Your task to perform on an android device: check android version Image 0: 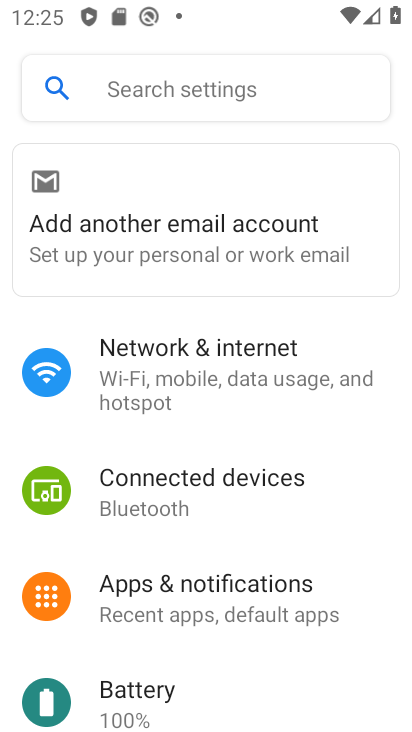
Step 0: drag from (190, 355) to (186, 40)
Your task to perform on an android device: check android version Image 1: 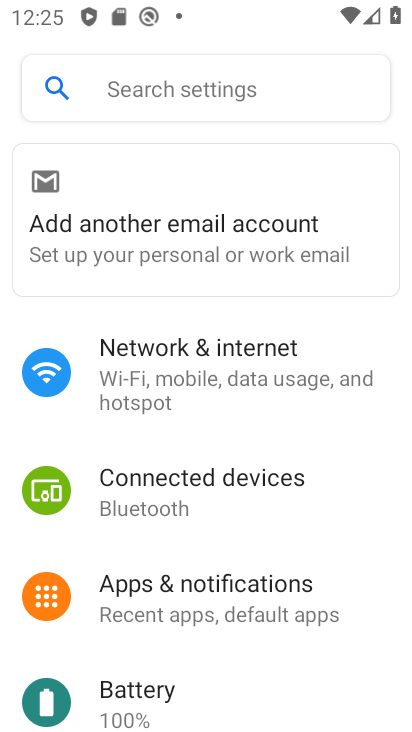
Step 1: drag from (227, 660) to (298, 274)
Your task to perform on an android device: check android version Image 2: 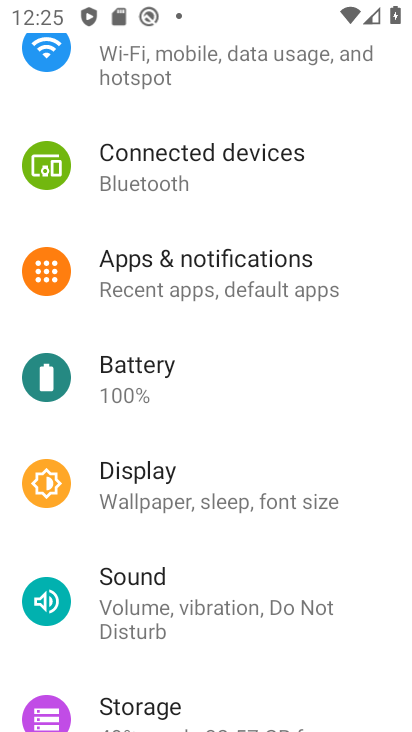
Step 2: drag from (171, 690) to (304, 27)
Your task to perform on an android device: check android version Image 3: 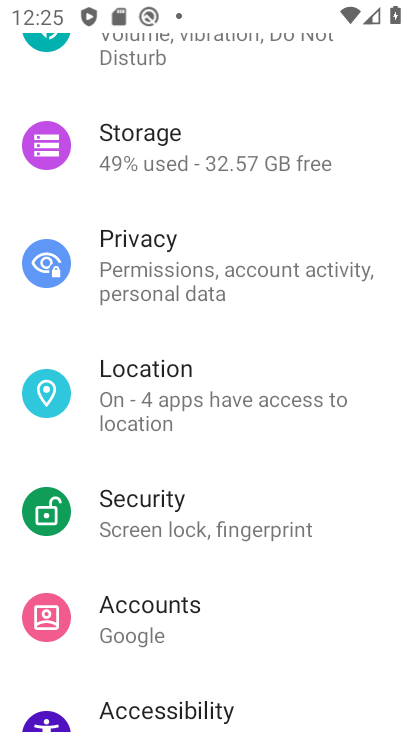
Step 3: drag from (120, 678) to (238, 225)
Your task to perform on an android device: check android version Image 4: 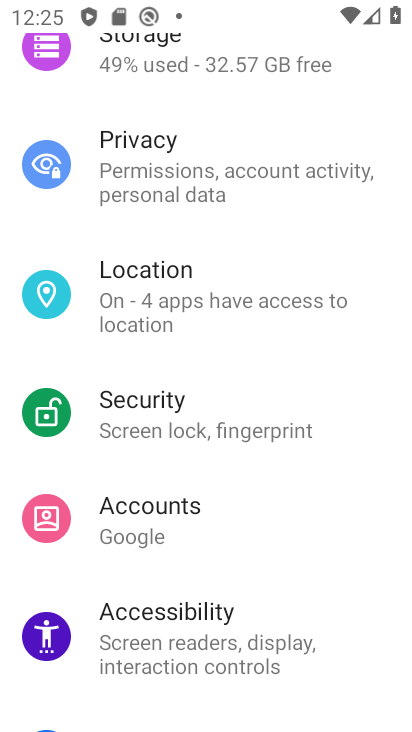
Step 4: drag from (286, 578) to (300, 206)
Your task to perform on an android device: check android version Image 5: 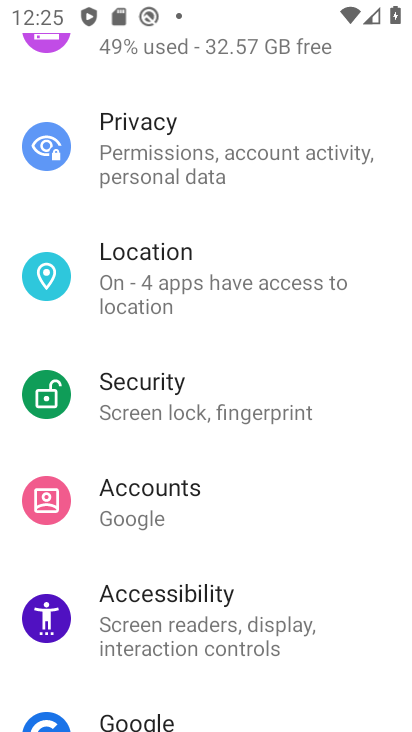
Step 5: drag from (85, 692) to (175, 286)
Your task to perform on an android device: check android version Image 6: 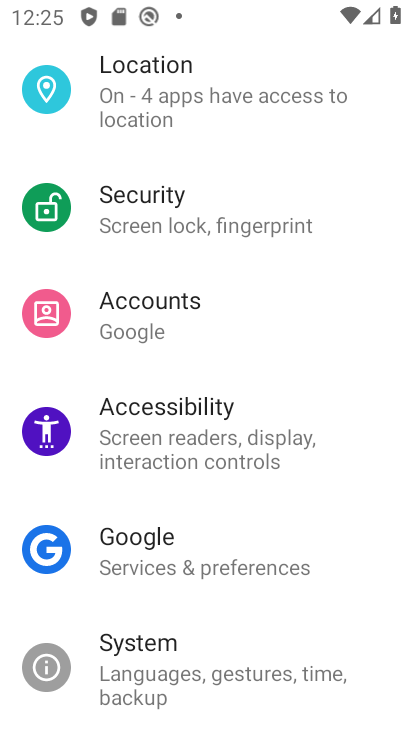
Step 6: drag from (248, 651) to (270, 268)
Your task to perform on an android device: check android version Image 7: 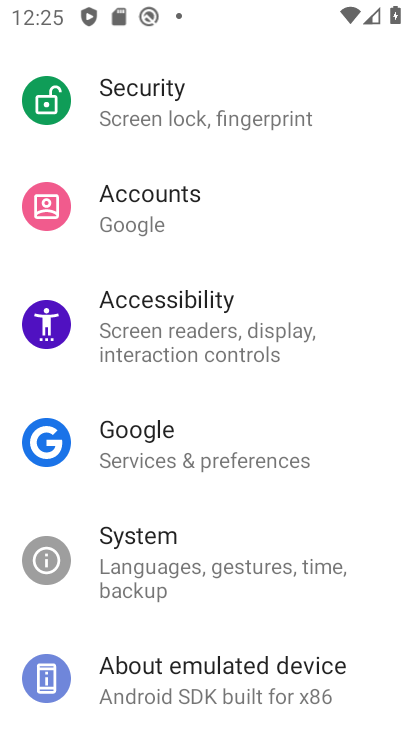
Step 7: drag from (144, 702) to (183, 401)
Your task to perform on an android device: check android version Image 8: 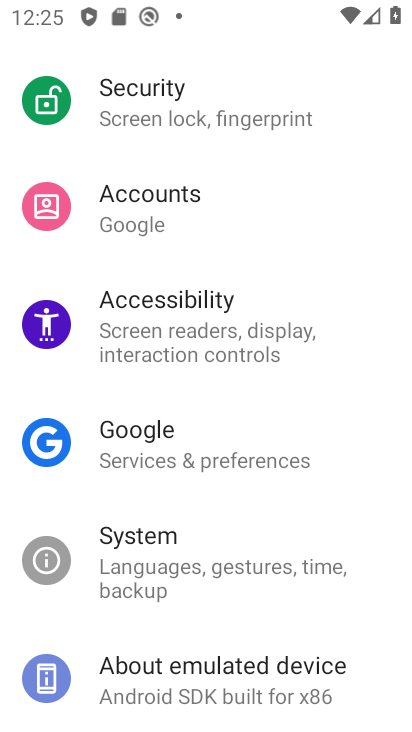
Step 8: click (284, 700)
Your task to perform on an android device: check android version Image 9: 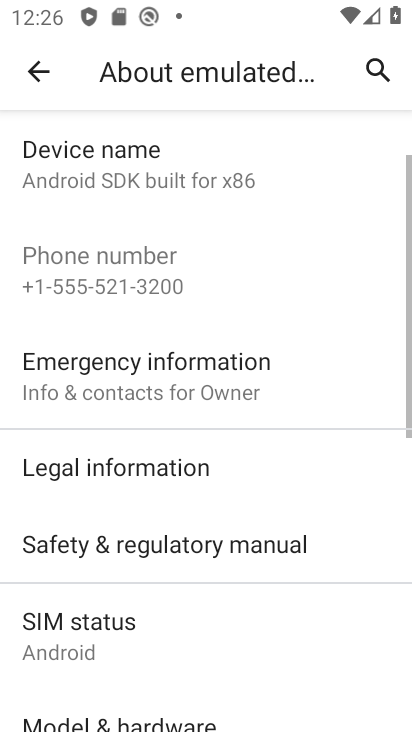
Step 9: drag from (117, 647) to (201, 7)
Your task to perform on an android device: check android version Image 10: 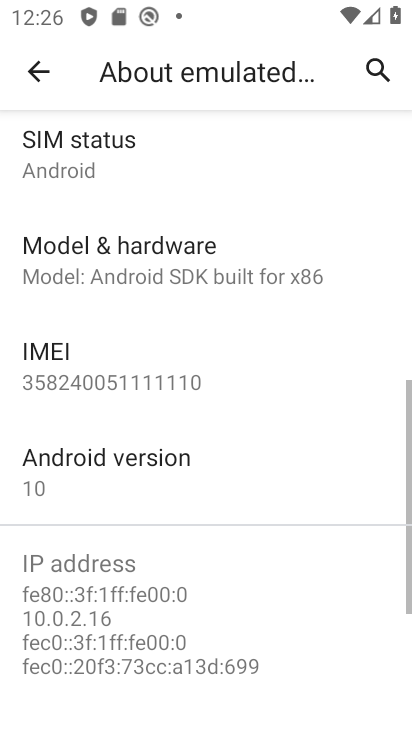
Step 10: click (162, 658)
Your task to perform on an android device: check android version Image 11: 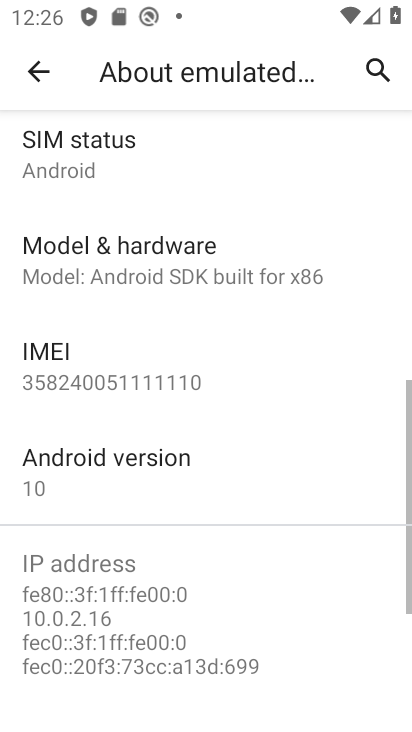
Step 11: click (187, 469)
Your task to perform on an android device: check android version Image 12: 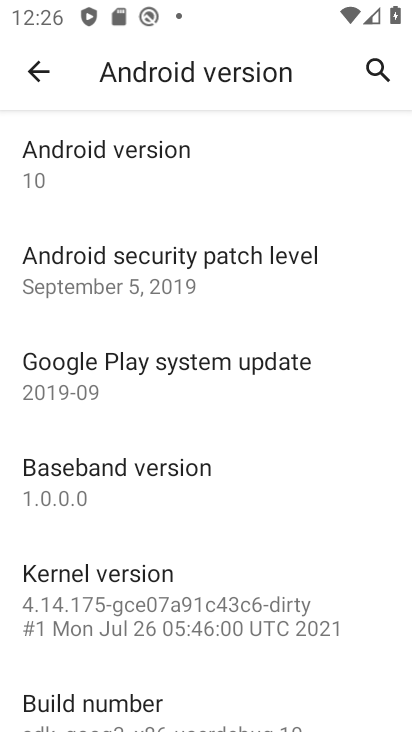
Step 12: task complete